Your task to perform on an android device: Go to Google Image 0: 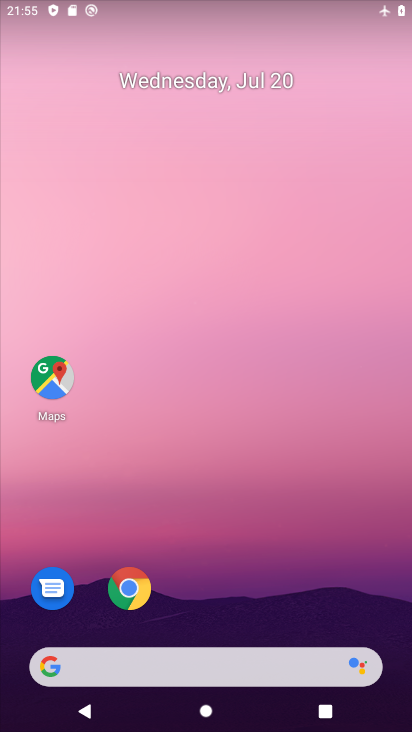
Step 0: click (130, 586)
Your task to perform on an android device: Go to Google Image 1: 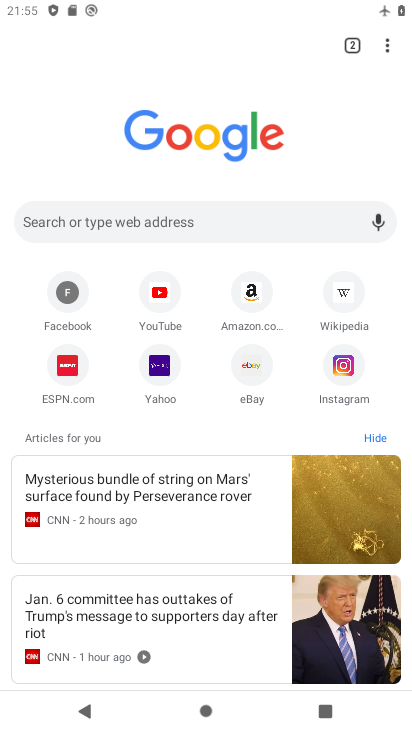
Step 1: task complete